Your task to perform on an android device: move a message to another label in the gmail app Image 0: 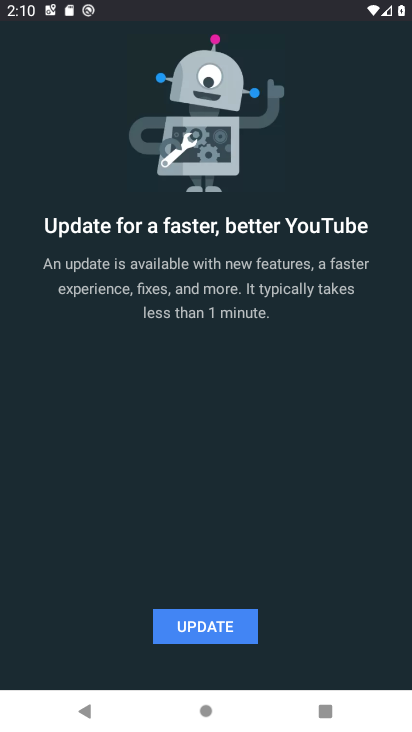
Step 0: press home button
Your task to perform on an android device: move a message to another label in the gmail app Image 1: 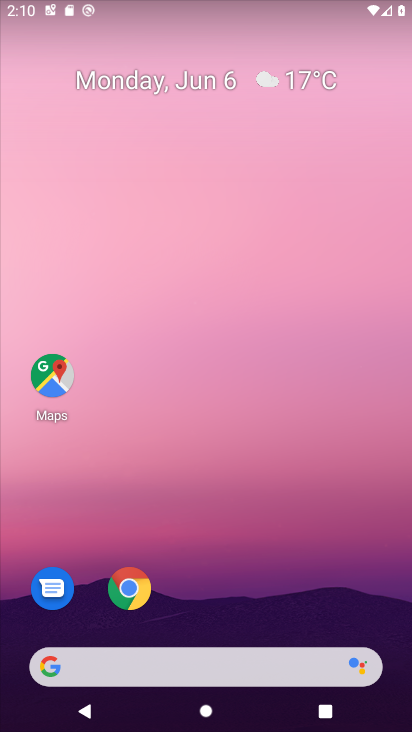
Step 1: drag from (254, 711) to (375, 16)
Your task to perform on an android device: move a message to another label in the gmail app Image 2: 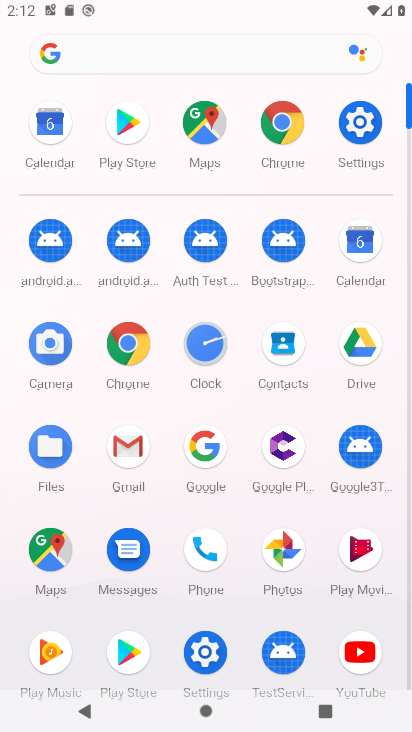
Step 2: click (143, 444)
Your task to perform on an android device: move a message to another label in the gmail app Image 3: 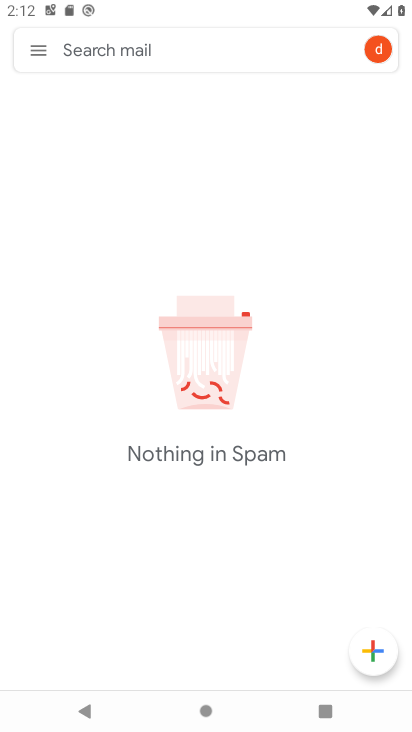
Step 3: click (40, 48)
Your task to perform on an android device: move a message to another label in the gmail app Image 4: 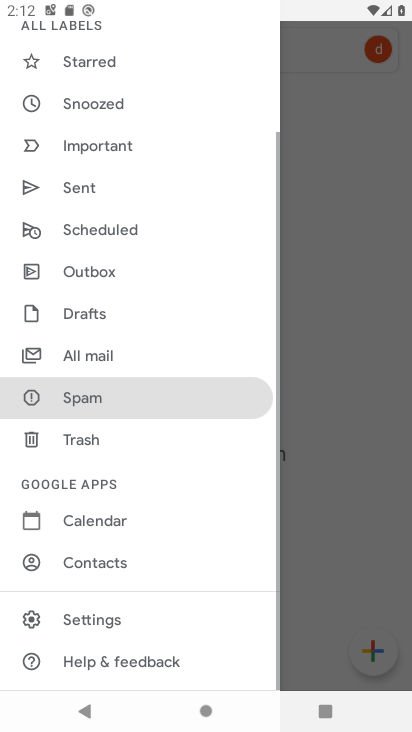
Step 4: click (135, 338)
Your task to perform on an android device: move a message to another label in the gmail app Image 5: 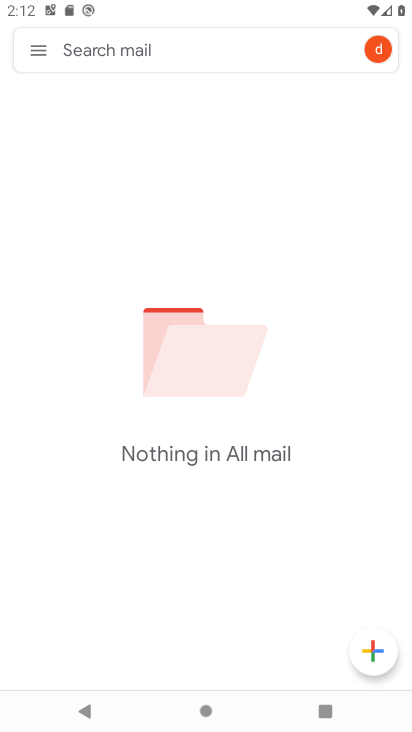
Step 5: task complete